Your task to perform on an android device: Open internet settings Image 0: 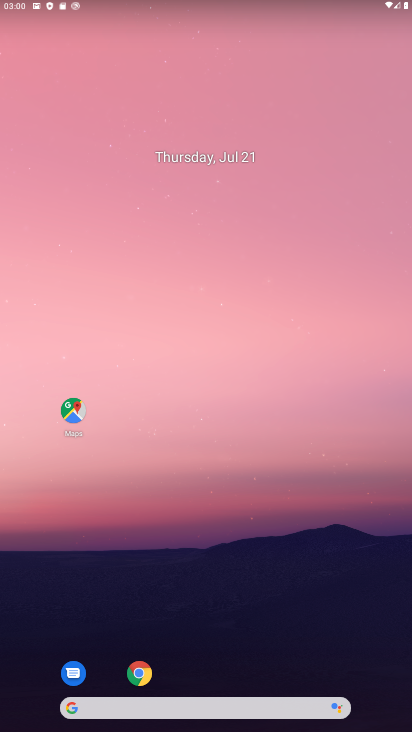
Step 0: drag from (294, 398) to (263, 75)
Your task to perform on an android device: Open internet settings Image 1: 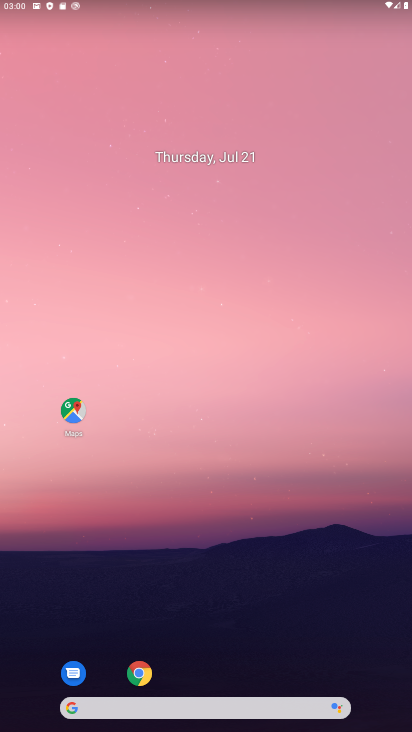
Step 1: drag from (313, 630) to (250, 71)
Your task to perform on an android device: Open internet settings Image 2: 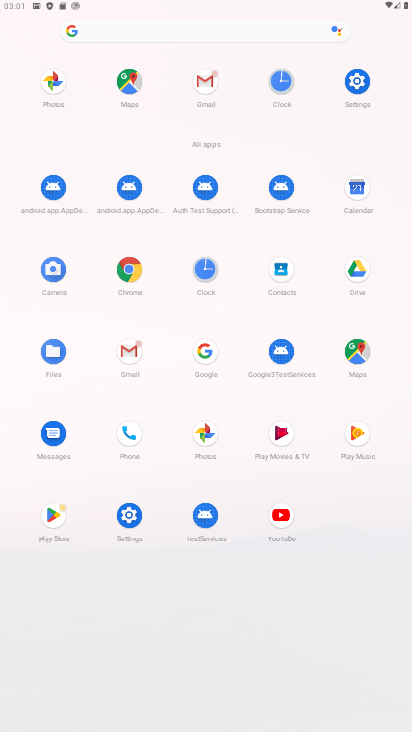
Step 2: click (351, 81)
Your task to perform on an android device: Open internet settings Image 3: 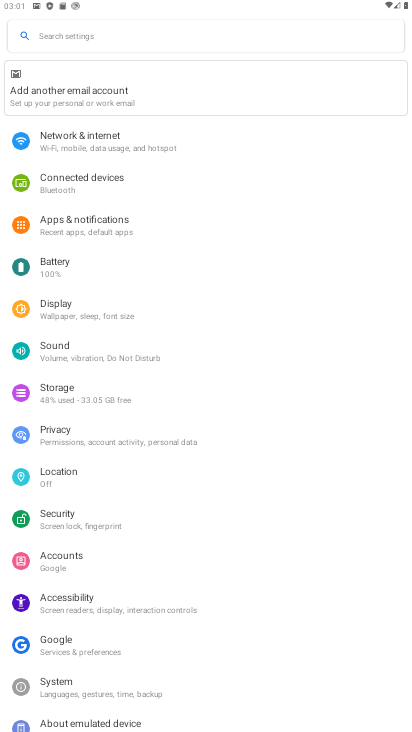
Step 3: click (146, 136)
Your task to perform on an android device: Open internet settings Image 4: 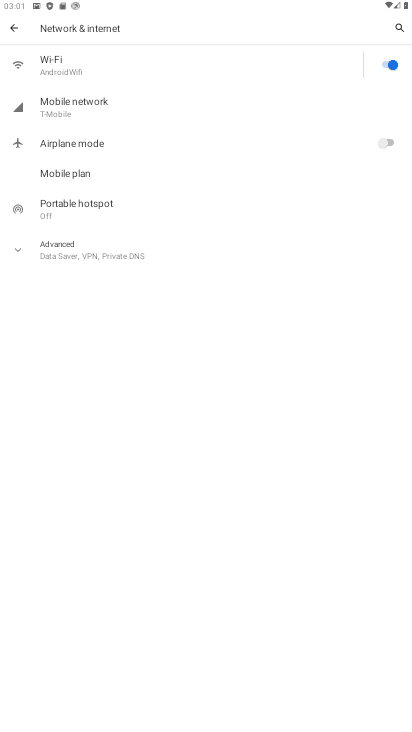
Step 4: click (63, 255)
Your task to perform on an android device: Open internet settings Image 5: 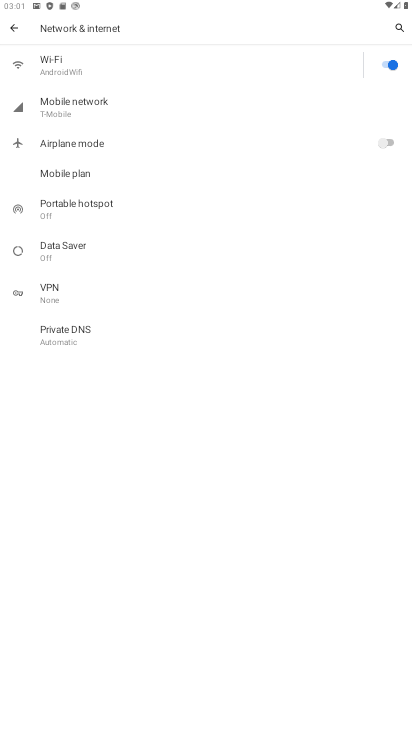
Step 5: task complete